Your task to perform on an android device: turn on improve location accuracy Image 0: 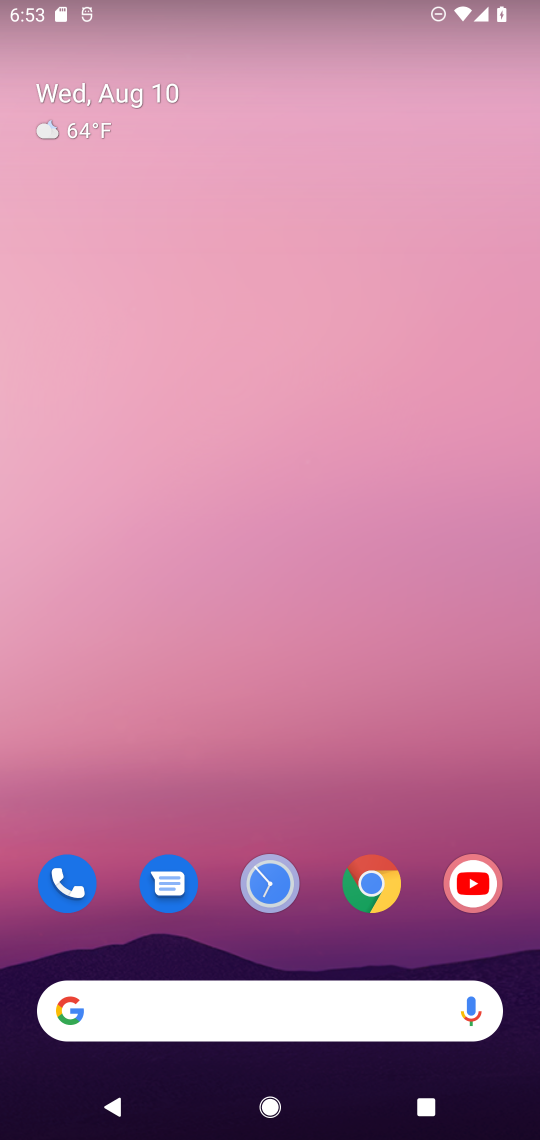
Step 0: drag from (300, 930) to (390, 113)
Your task to perform on an android device: turn on improve location accuracy Image 1: 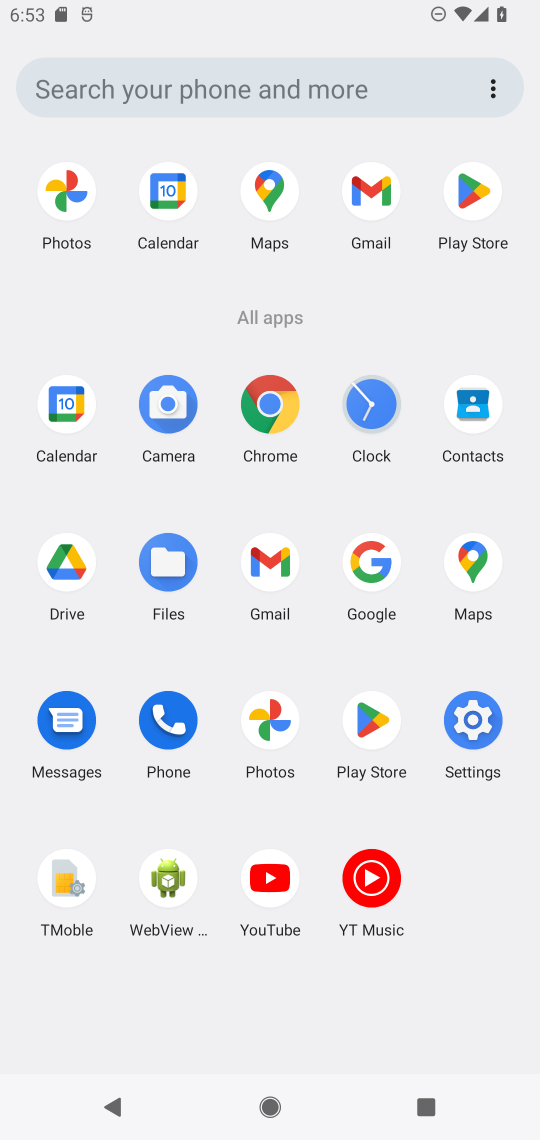
Step 1: click (465, 719)
Your task to perform on an android device: turn on improve location accuracy Image 2: 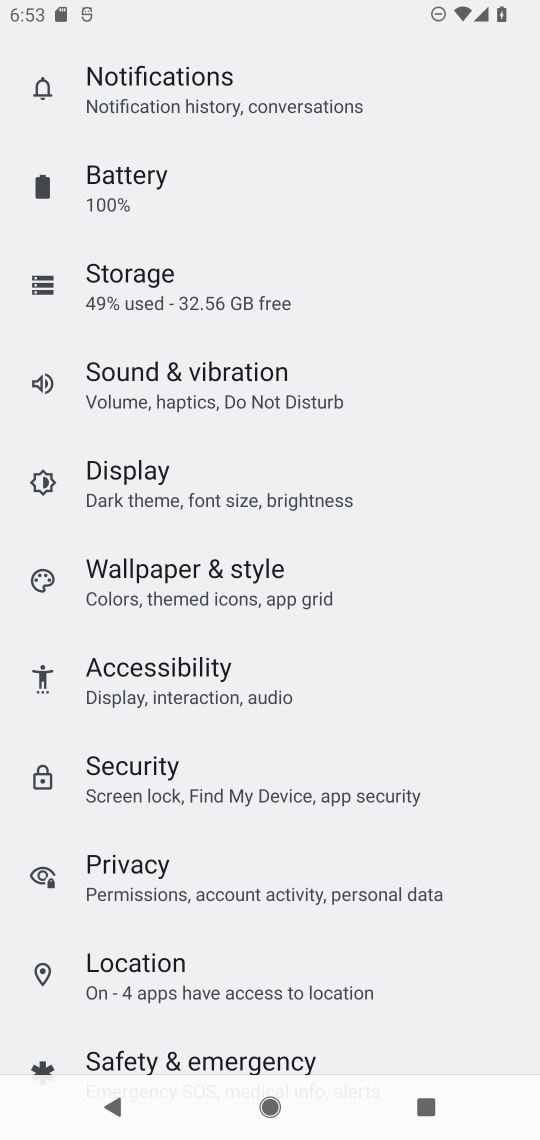
Step 2: drag from (320, 934) to (342, 443)
Your task to perform on an android device: turn on improve location accuracy Image 3: 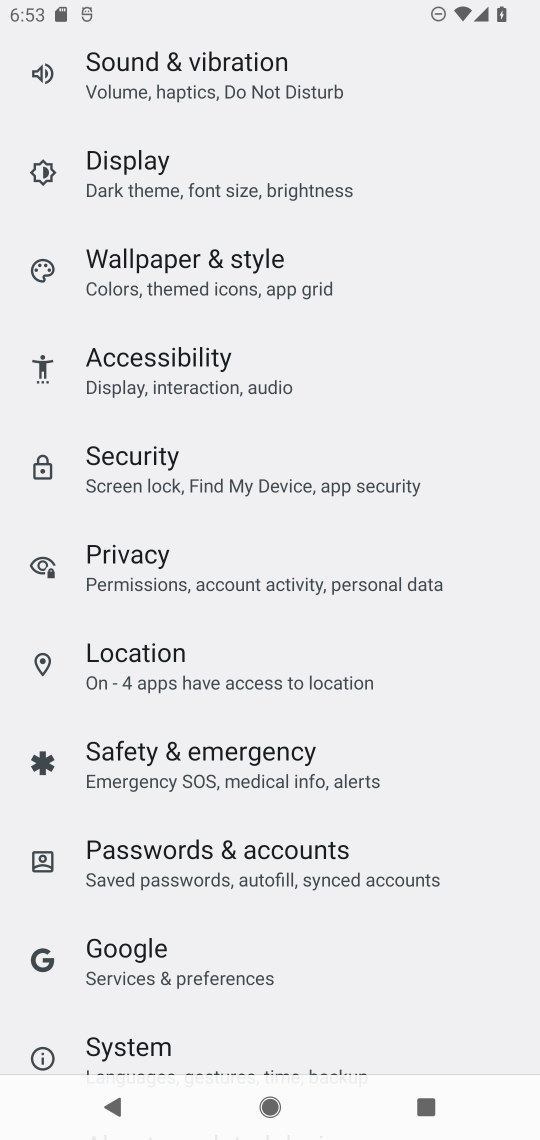
Step 3: click (132, 663)
Your task to perform on an android device: turn on improve location accuracy Image 4: 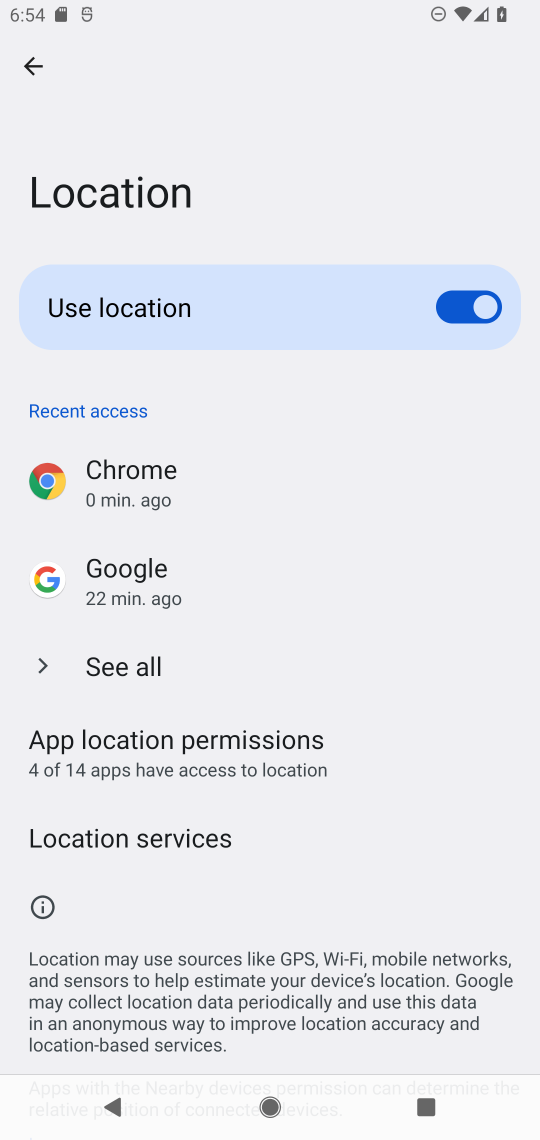
Step 4: task complete